Your task to perform on an android device: check out phone information Image 0: 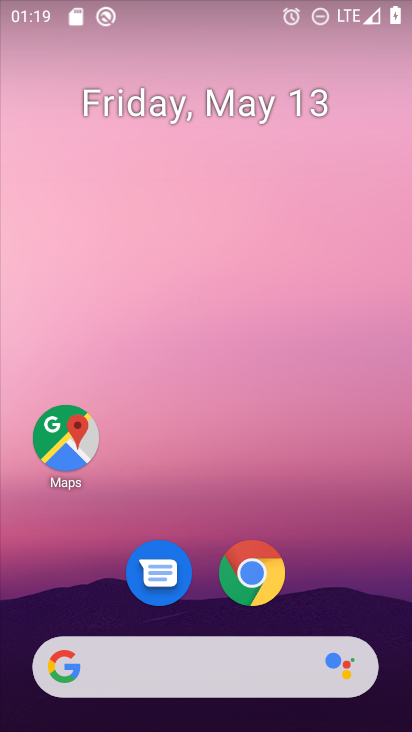
Step 0: drag from (192, 699) to (342, 6)
Your task to perform on an android device: check out phone information Image 1: 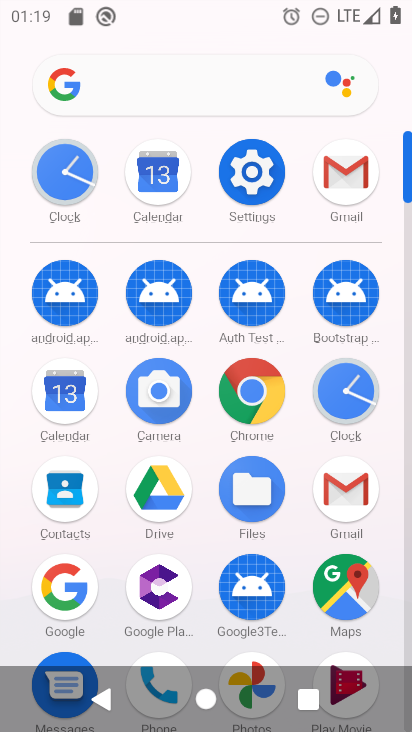
Step 1: click (231, 170)
Your task to perform on an android device: check out phone information Image 2: 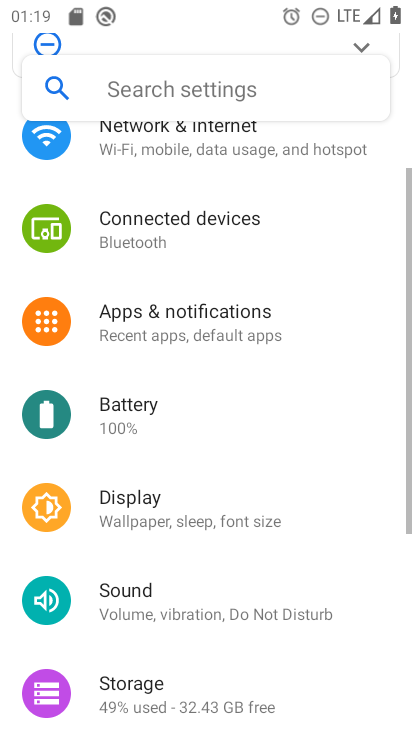
Step 2: drag from (250, 684) to (278, 76)
Your task to perform on an android device: check out phone information Image 3: 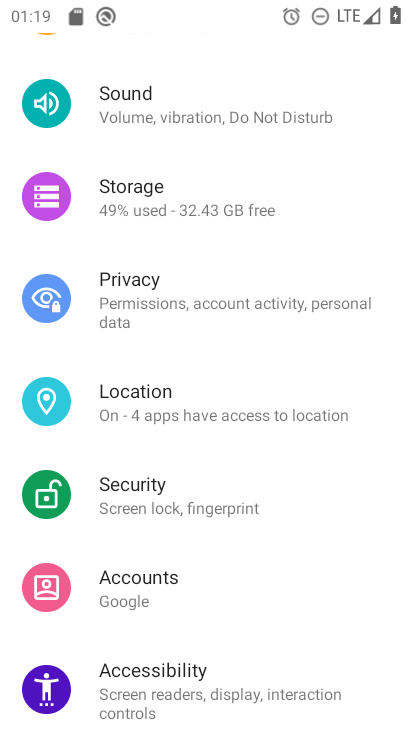
Step 3: drag from (253, 529) to (267, 84)
Your task to perform on an android device: check out phone information Image 4: 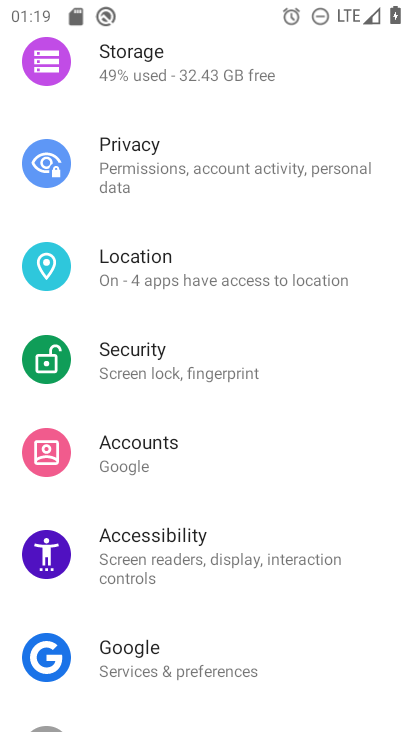
Step 4: drag from (274, 649) to (284, 141)
Your task to perform on an android device: check out phone information Image 5: 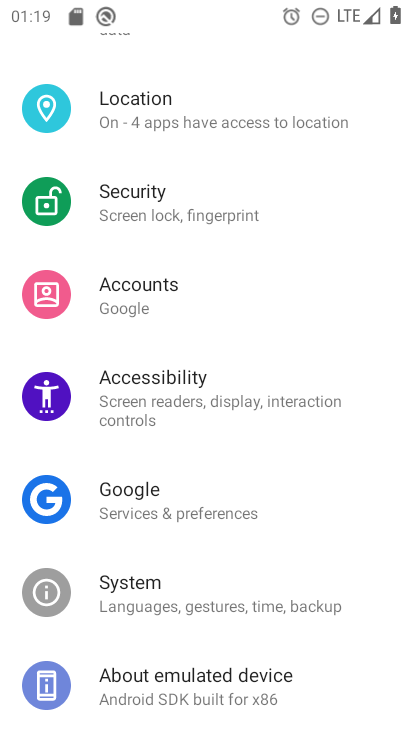
Step 5: click (259, 697)
Your task to perform on an android device: check out phone information Image 6: 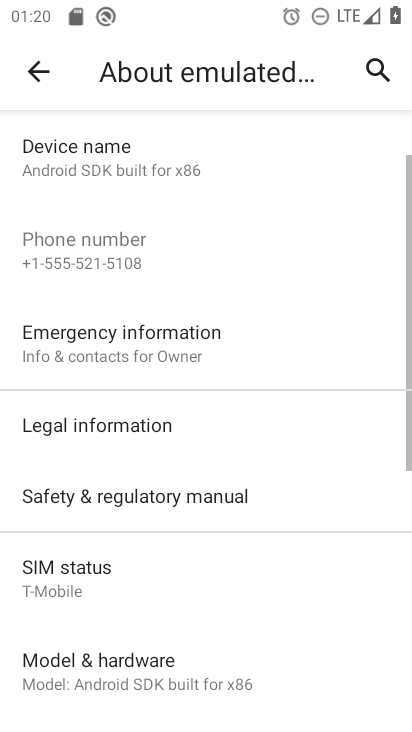
Step 6: task complete